Your task to perform on an android device: Open sound settings Image 0: 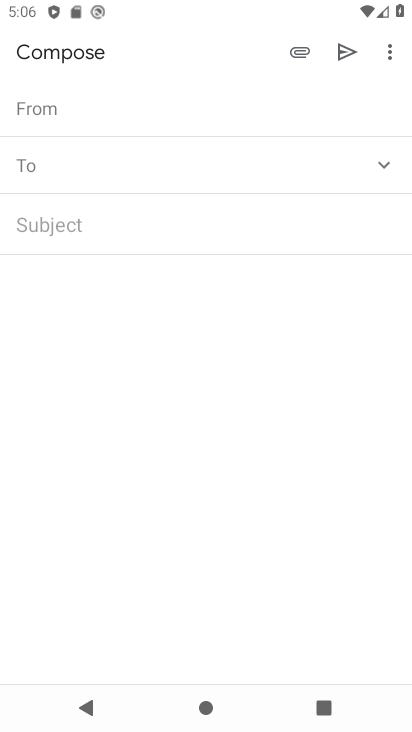
Step 0: drag from (244, 256) to (258, 101)
Your task to perform on an android device: Open sound settings Image 1: 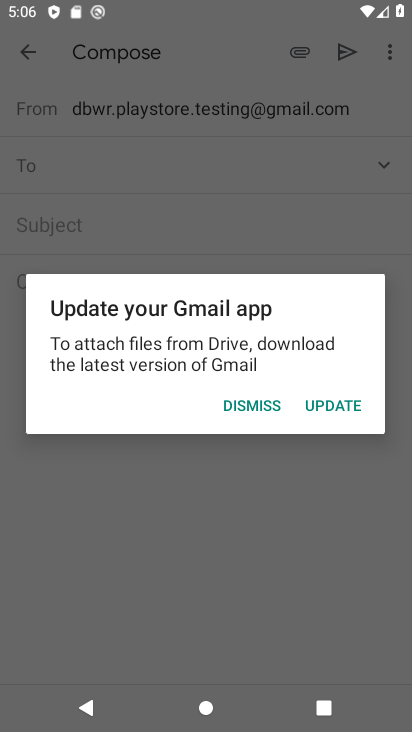
Step 1: press home button
Your task to perform on an android device: Open sound settings Image 2: 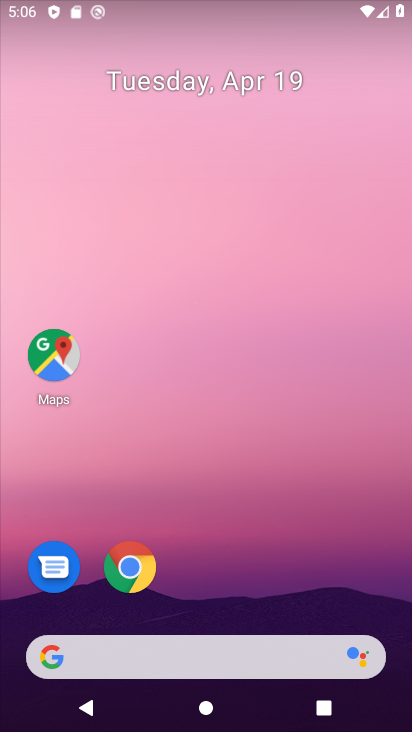
Step 2: drag from (223, 596) to (230, 267)
Your task to perform on an android device: Open sound settings Image 3: 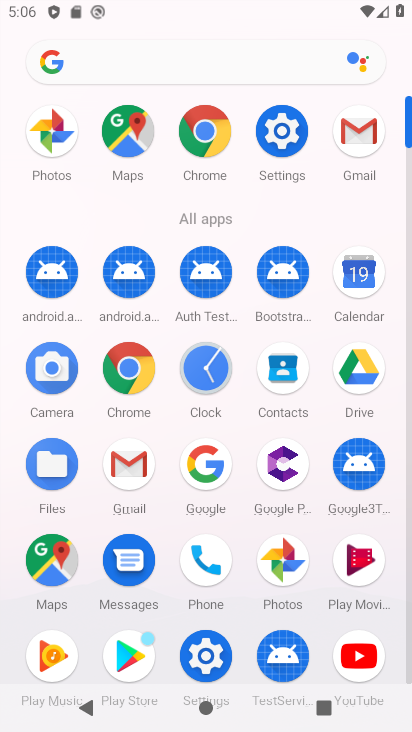
Step 3: click (275, 113)
Your task to perform on an android device: Open sound settings Image 4: 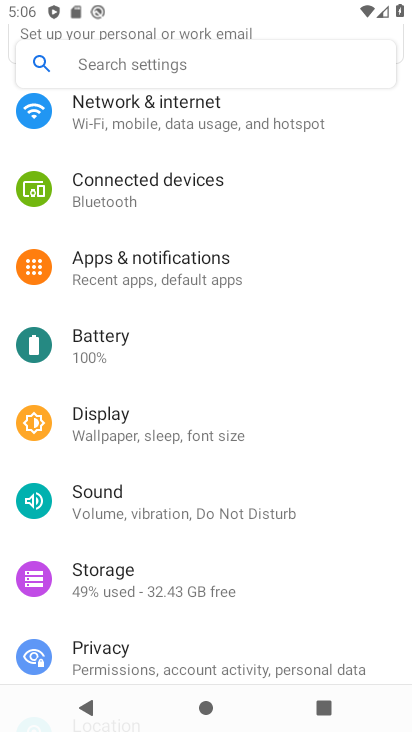
Step 4: click (186, 517)
Your task to perform on an android device: Open sound settings Image 5: 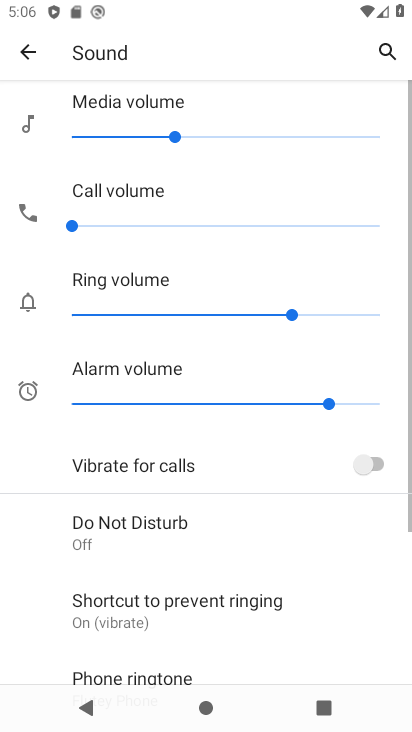
Step 5: task complete